Your task to perform on an android device: turn on data saver in the chrome app Image 0: 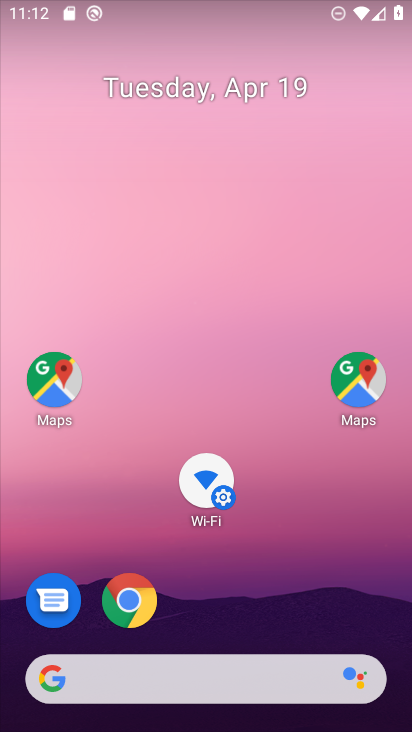
Step 0: drag from (327, 597) to (289, 8)
Your task to perform on an android device: turn on data saver in the chrome app Image 1: 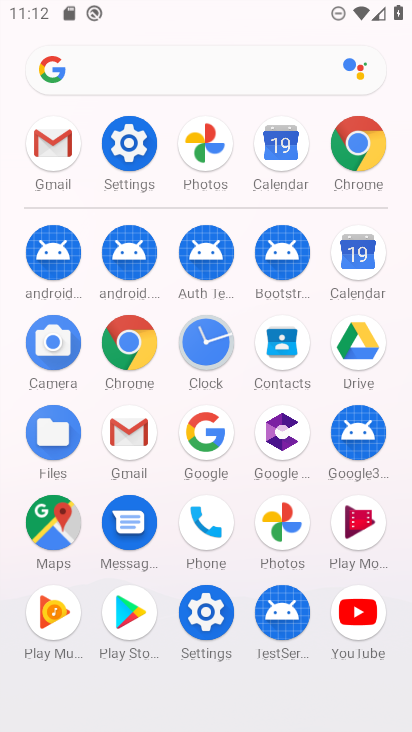
Step 1: click (132, 340)
Your task to perform on an android device: turn on data saver in the chrome app Image 2: 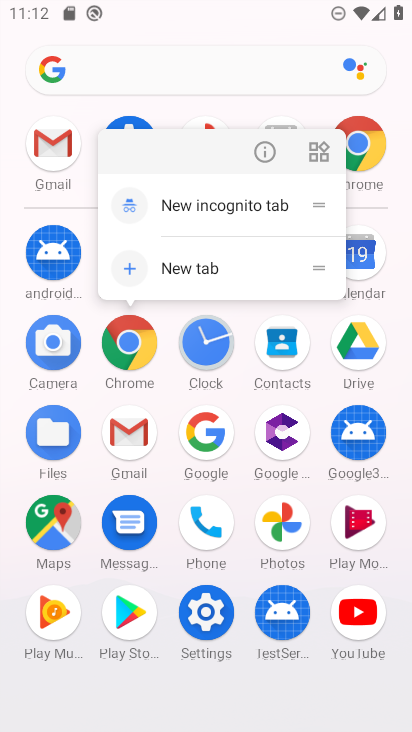
Step 2: click (132, 340)
Your task to perform on an android device: turn on data saver in the chrome app Image 3: 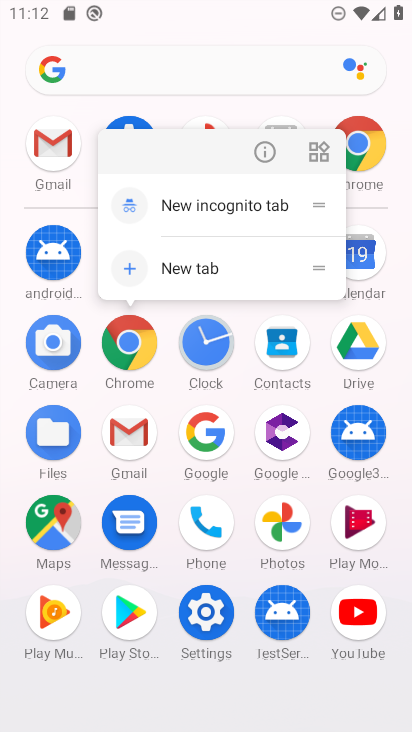
Step 3: click (130, 355)
Your task to perform on an android device: turn on data saver in the chrome app Image 4: 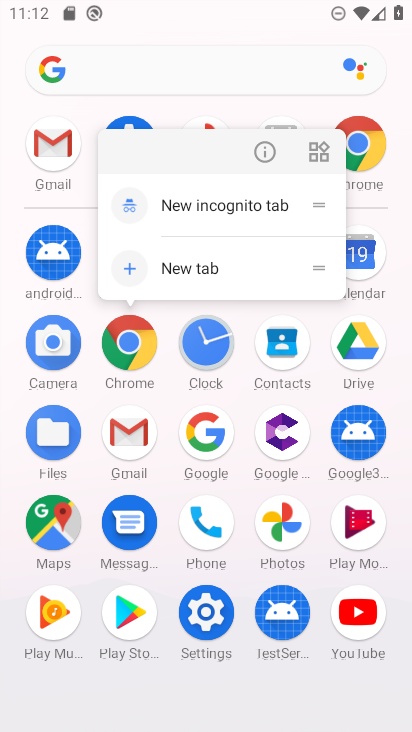
Step 4: click (142, 353)
Your task to perform on an android device: turn on data saver in the chrome app Image 5: 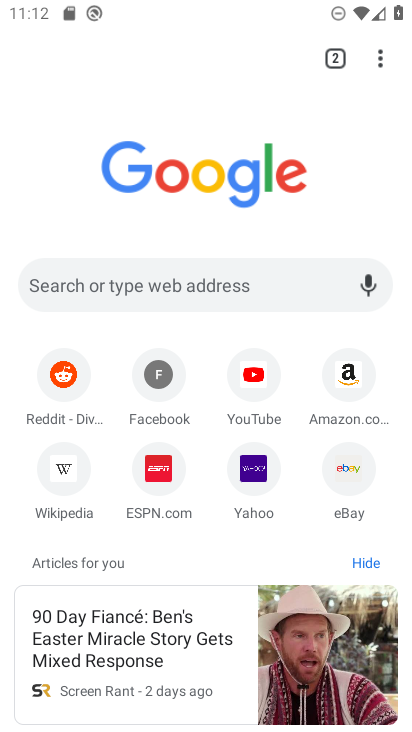
Step 5: click (372, 57)
Your task to perform on an android device: turn on data saver in the chrome app Image 6: 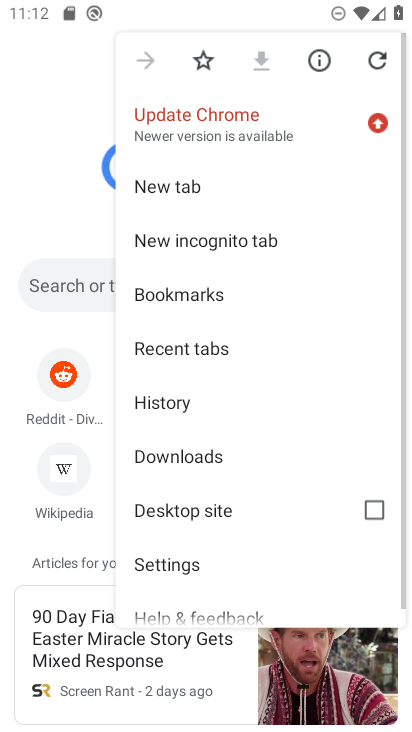
Step 6: drag from (307, 560) to (288, 99)
Your task to perform on an android device: turn on data saver in the chrome app Image 7: 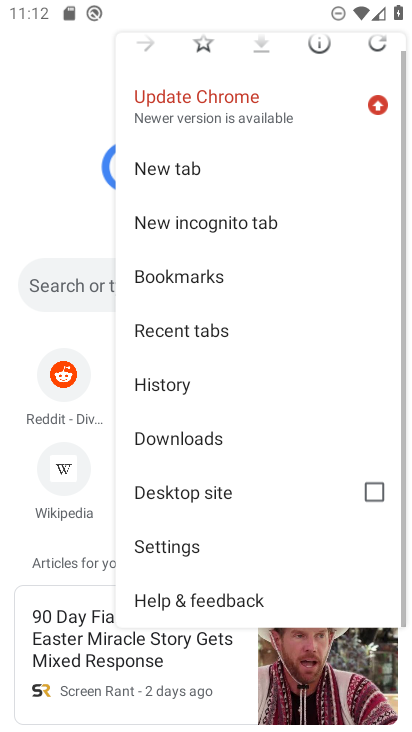
Step 7: click (197, 543)
Your task to perform on an android device: turn on data saver in the chrome app Image 8: 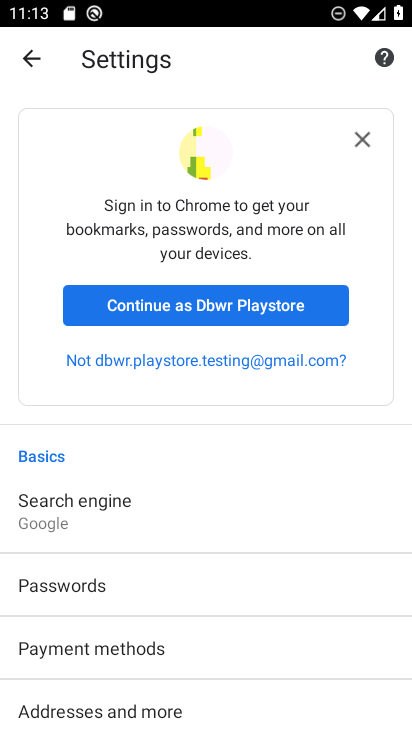
Step 8: drag from (237, 669) to (257, 119)
Your task to perform on an android device: turn on data saver in the chrome app Image 9: 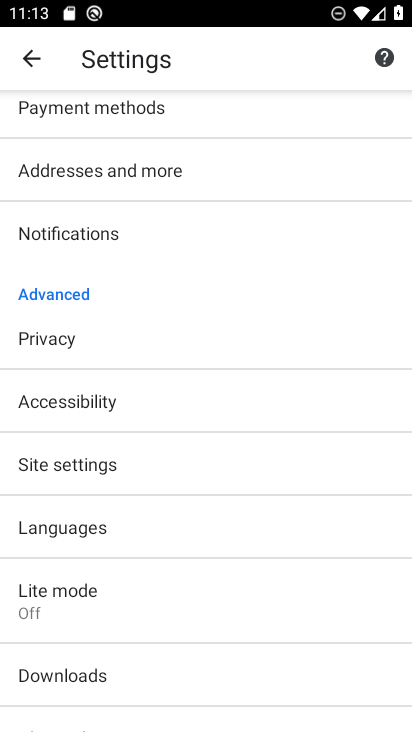
Step 9: click (153, 606)
Your task to perform on an android device: turn on data saver in the chrome app Image 10: 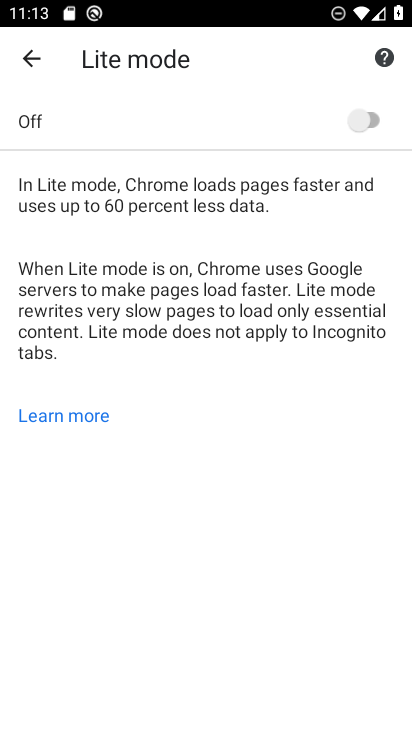
Step 10: click (378, 122)
Your task to perform on an android device: turn on data saver in the chrome app Image 11: 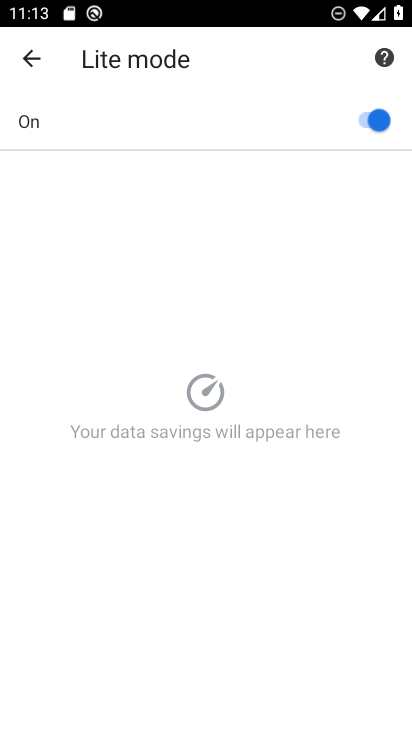
Step 11: task complete